Your task to perform on an android device: Is it going to rain this weekend? Image 0: 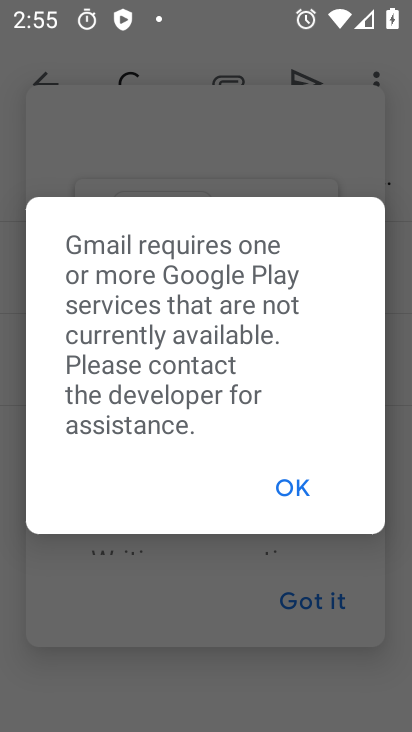
Step 0: press home button
Your task to perform on an android device: Is it going to rain this weekend? Image 1: 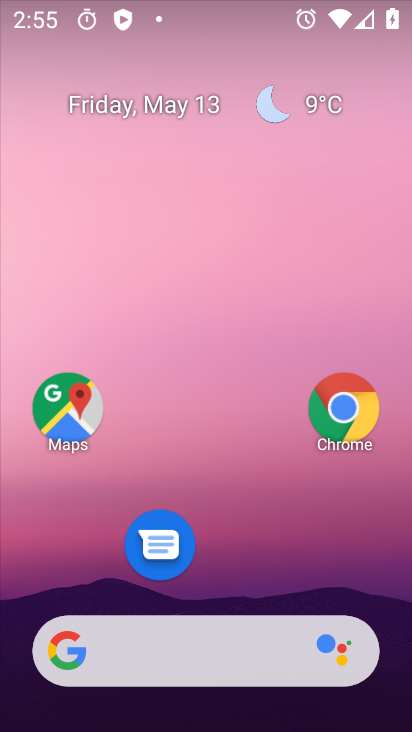
Step 1: drag from (284, 580) to (280, 111)
Your task to perform on an android device: Is it going to rain this weekend? Image 2: 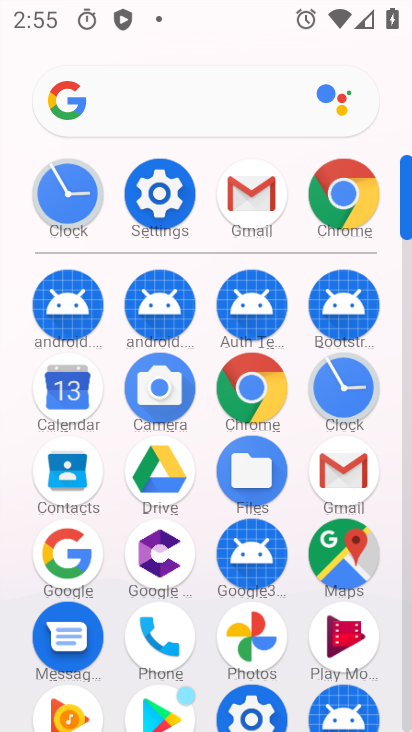
Step 2: click (341, 204)
Your task to perform on an android device: Is it going to rain this weekend? Image 3: 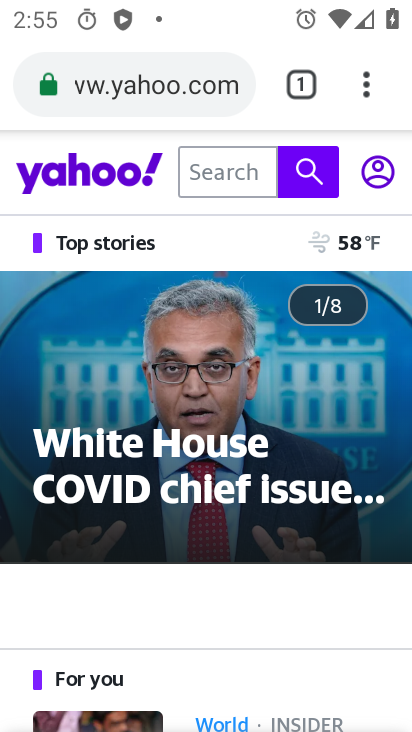
Step 3: click (178, 85)
Your task to perform on an android device: Is it going to rain this weekend? Image 4: 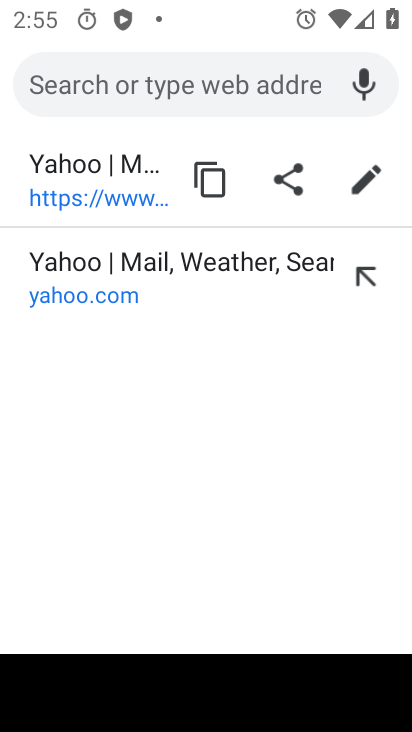
Step 4: type " Yahoo.com"
Your task to perform on an android device: Is it going to rain this weekend? Image 5: 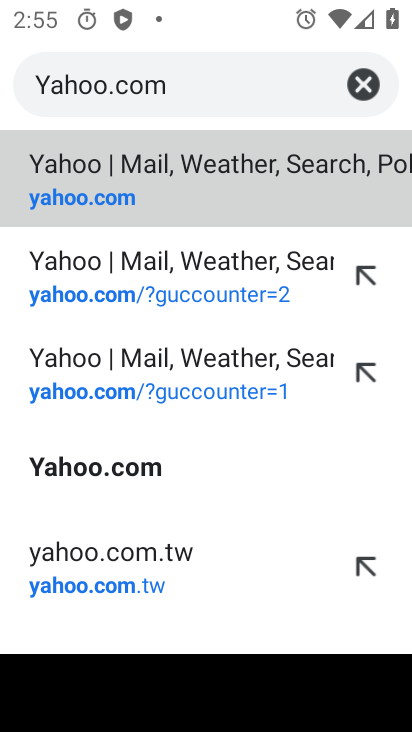
Step 5: click (59, 196)
Your task to perform on an android device: Is it going to rain this weekend? Image 6: 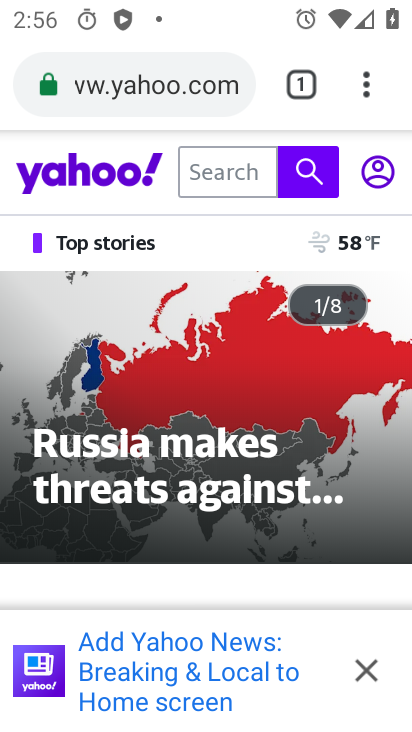
Step 6: click (155, 82)
Your task to perform on an android device: Is it going to rain this weekend? Image 7: 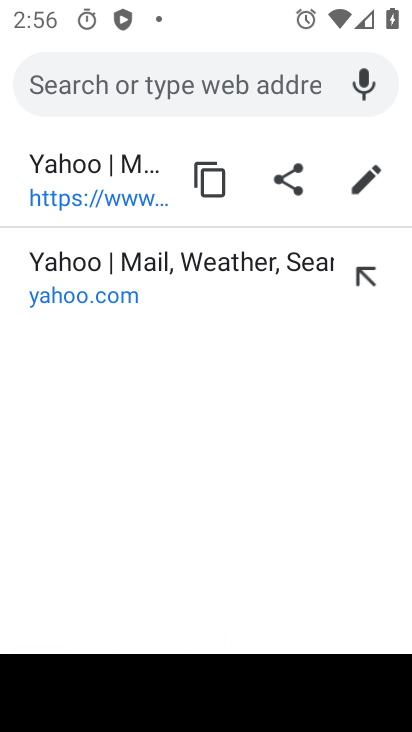
Step 7: type "Is it going to rain this weekend?"
Your task to perform on an android device: Is it going to rain this weekend? Image 8: 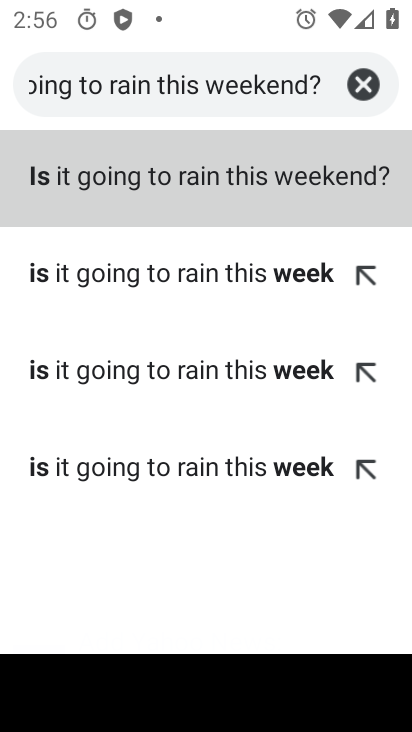
Step 8: click (243, 176)
Your task to perform on an android device: Is it going to rain this weekend? Image 9: 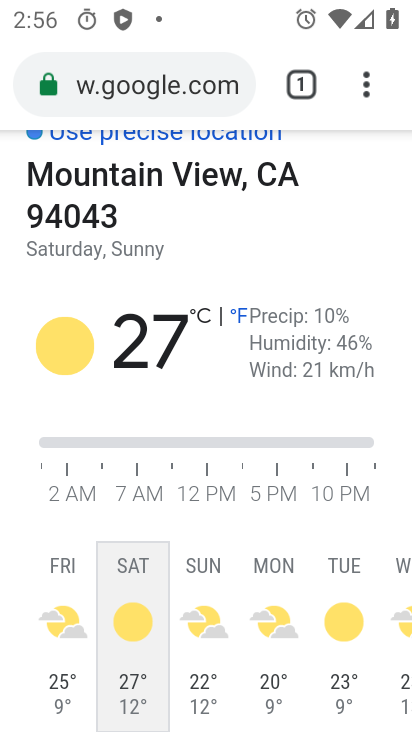
Step 9: task complete